Your task to perform on an android device: Go to settings Image 0: 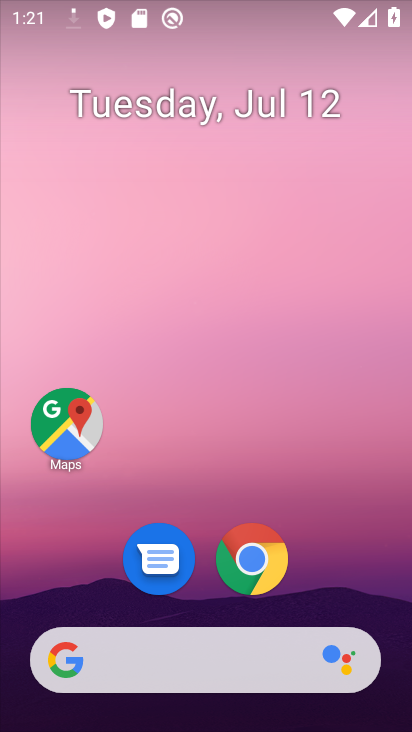
Step 0: drag from (365, 591) to (383, 81)
Your task to perform on an android device: Go to settings Image 1: 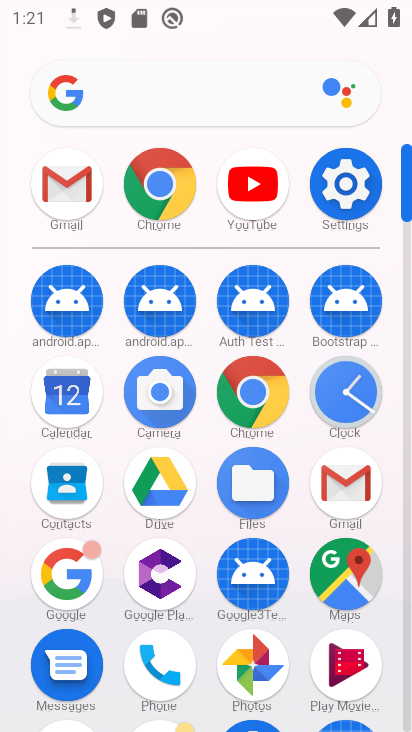
Step 1: click (352, 201)
Your task to perform on an android device: Go to settings Image 2: 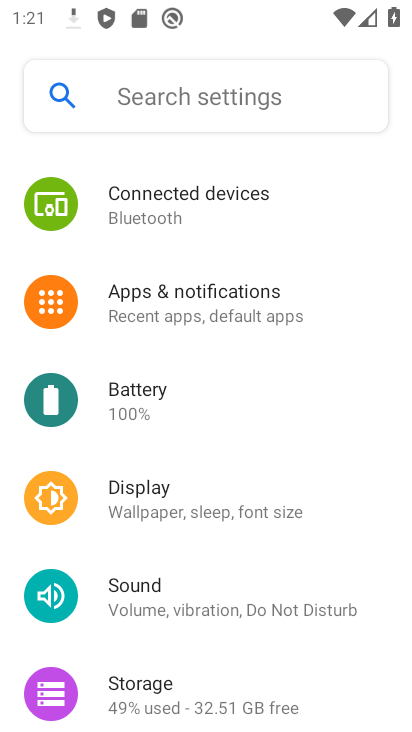
Step 2: task complete